Your task to perform on an android device: Show me popular videos on Youtube Image 0: 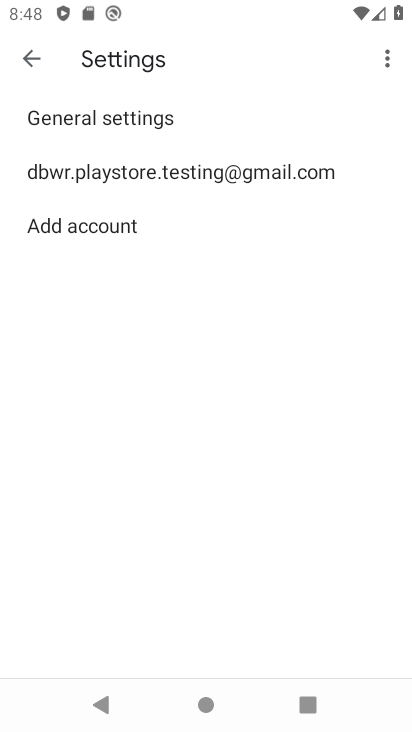
Step 0: click (212, 407)
Your task to perform on an android device: Show me popular videos on Youtube Image 1: 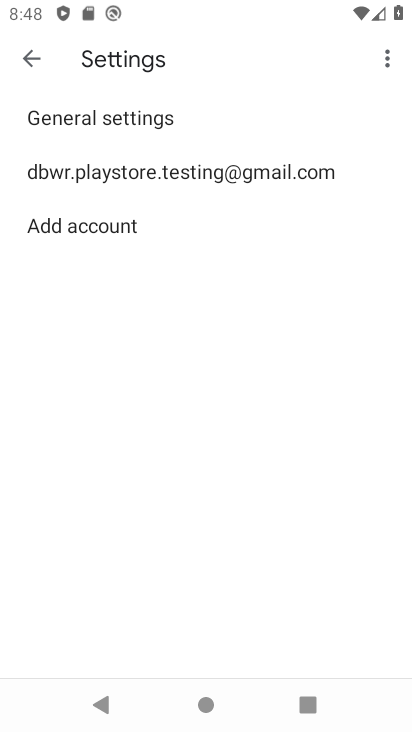
Step 1: press home button
Your task to perform on an android device: Show me popular videos on Youtube Image 2: 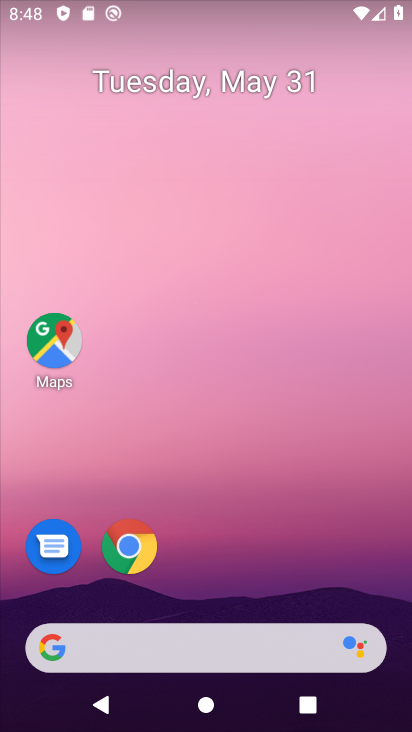
Step 2: drag from (396, 683) to (363, 143)
Your task to perform on an android device: Show me popular videos on Youtube Image 3: 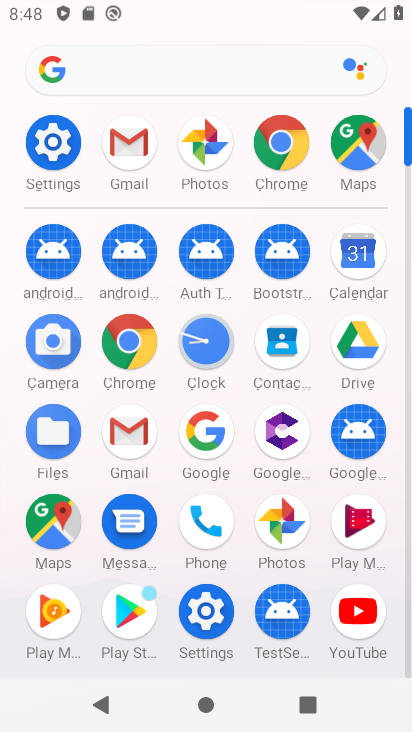
Step 3: click (350, 615)
Your task to perform on an android device: Show me popular videos on Youtube Image 4: 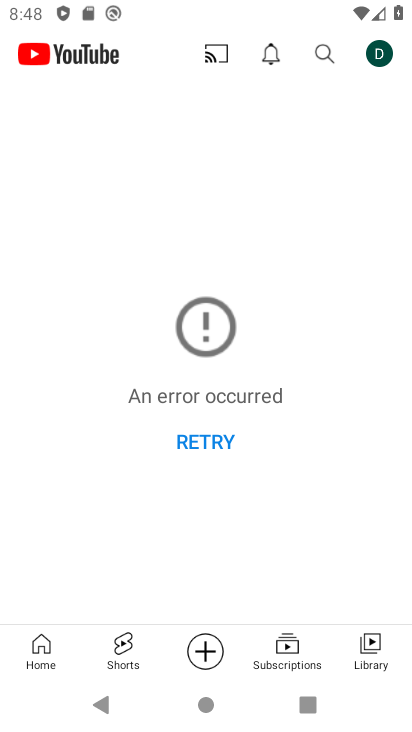
Step 4: click (372, 652)
Your task to perform on an android device: Show me popular videos on Youtube Image 5: 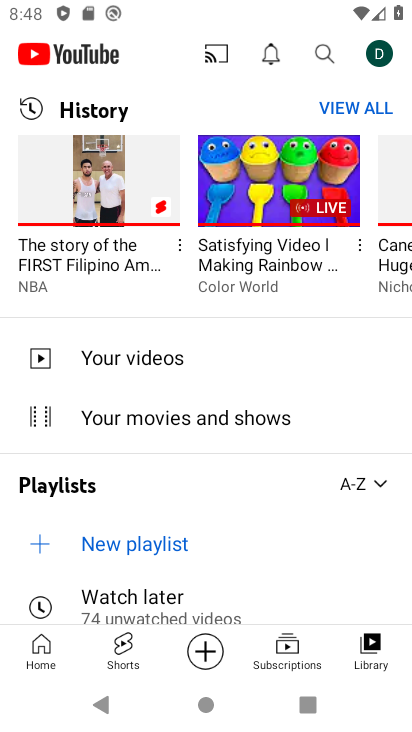
Step 5: click (316, 53)
Your task to perform on an android device: Show me popular videos on Youtube Image 6: 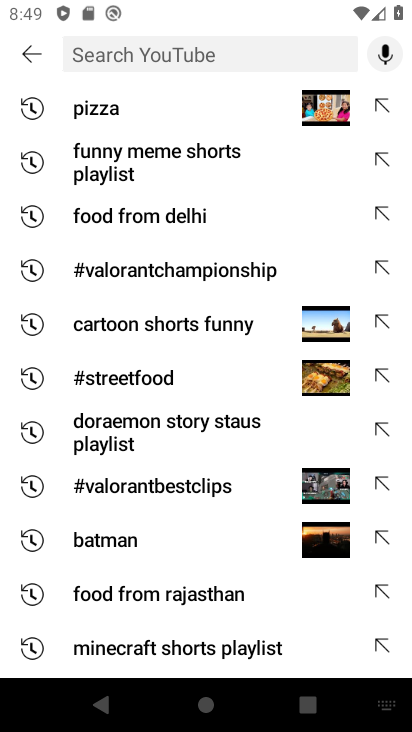
Step 6: type "popular videos"
Your task to perform on an android device: Show me popular videos on Youtube Image 7: 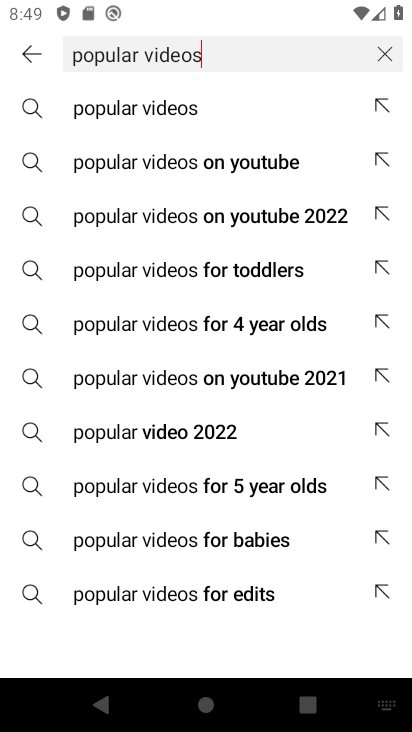
Step 7: click (114, 110)
Your task to perform on an android device: Show me popular videos on Youtube Image 8: 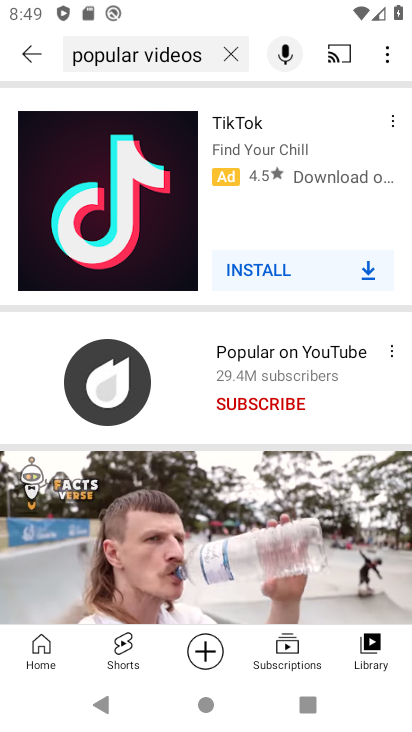
Step 8: task complete